Your task to perform on an android device: Open Reddit.com Image 0: 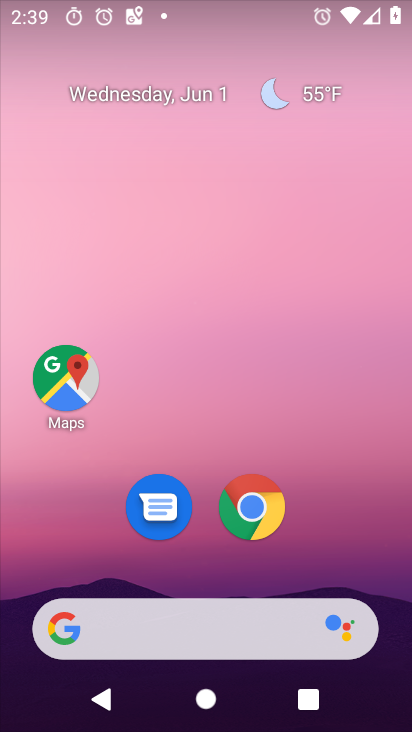
Step 0: click (248, 507)
Your task to perform on an android device: Open Reddit.com Image 1: 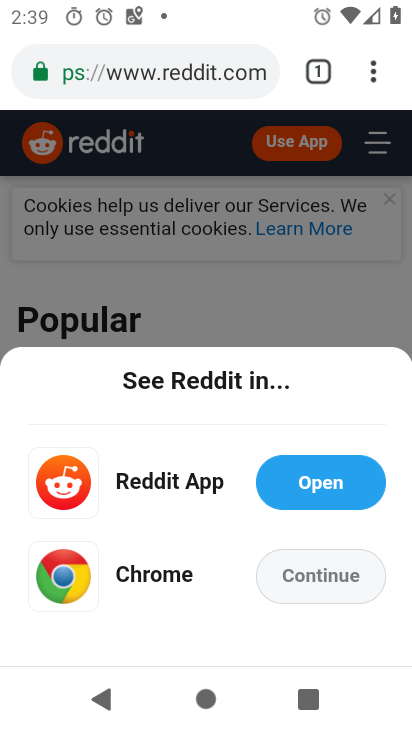
Step 1: task complete